Your task to perform on an android device: Open battery settings Image 0: 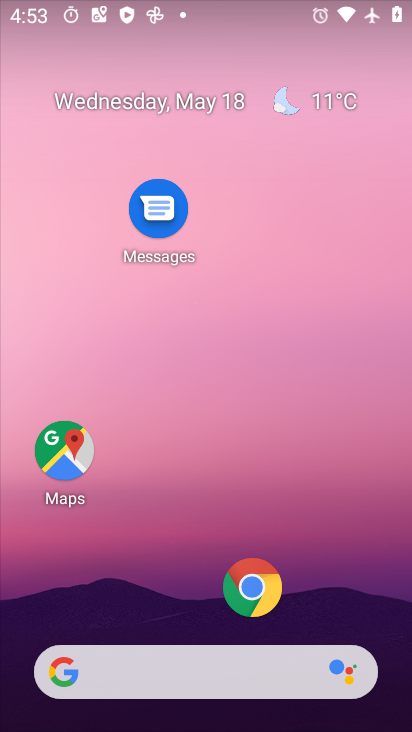
Step 0: drag from (282, 613) to (298, 245)
Your task to perform on an android device: Open battery settings Image 1: 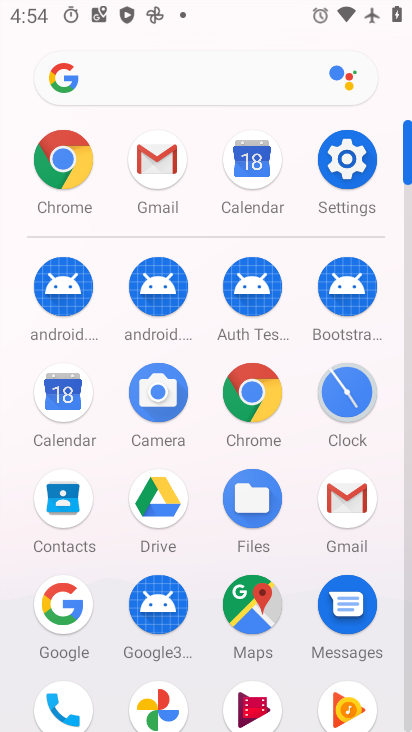
Step 1: click (340, 193)
Your task to perform on an android device: Open battery settings Image 2: 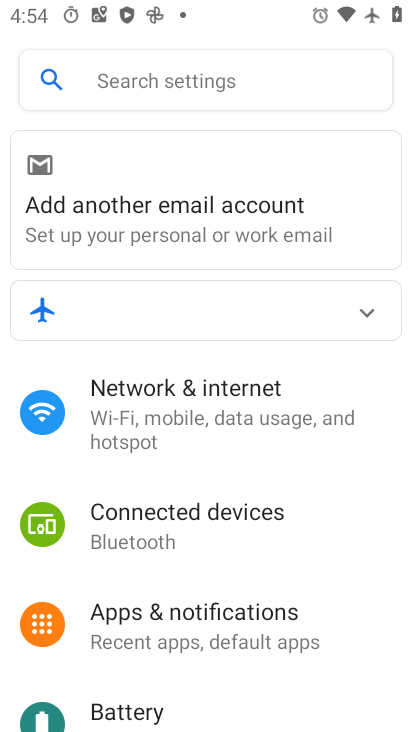
Step 2: click (191, 711)
Your task to perform on an android device: Open battery settings Image 3: 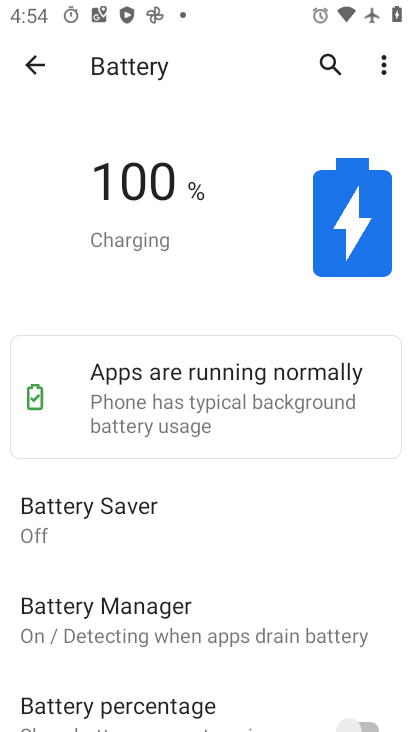
Step 3: task complete